Your task to perform on an android device: Google the capital of Panama Image 0: 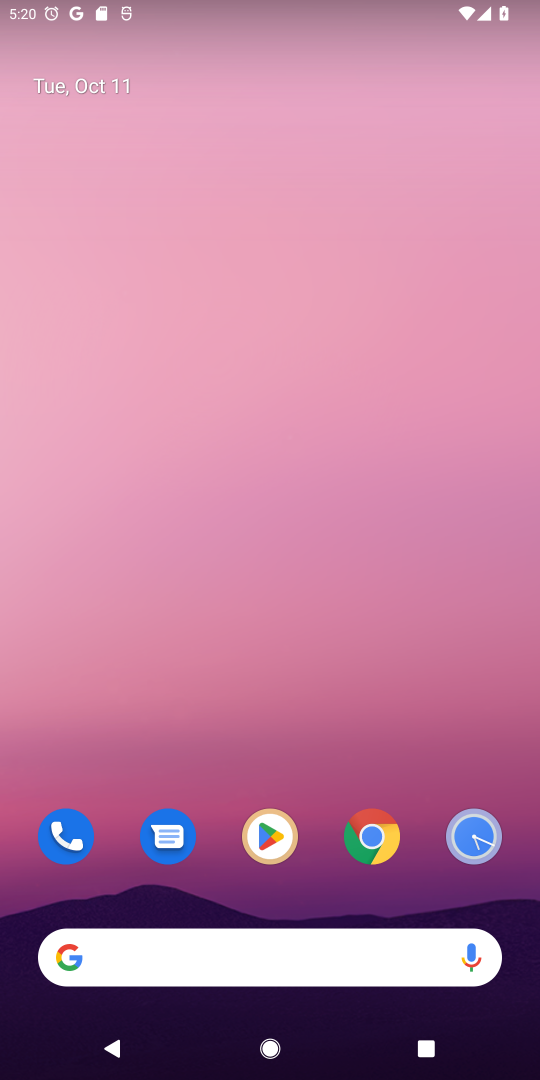
Step 0: click (174, 977)
Your task to perform on an android device: Google the capital of Panama Image 1: 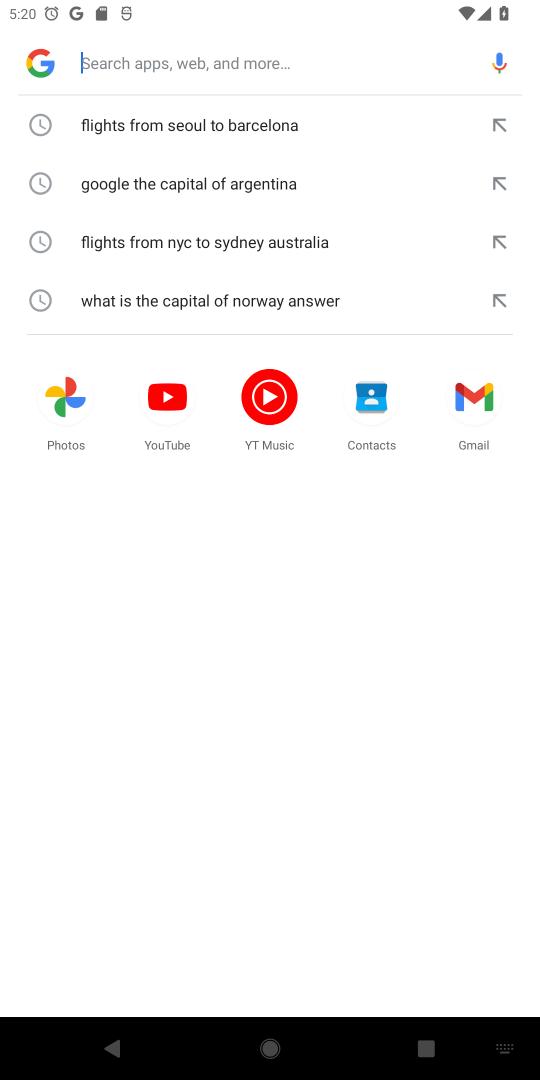
Step 1: type " capital of Panama"
Your task to perform on an android device: Google the capital of Panama Image 2: 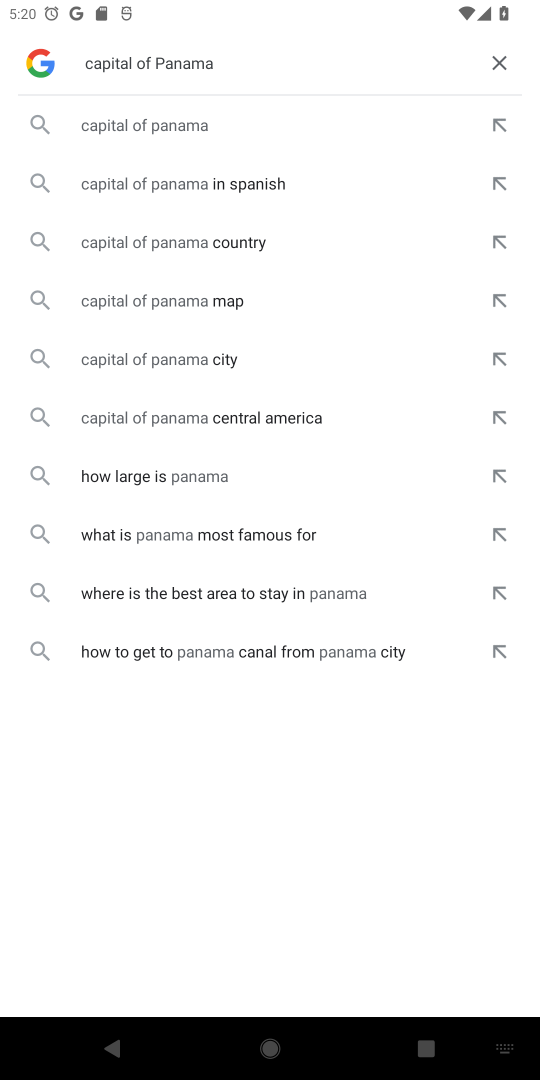
Step 2: click (187, 108)
Your task to perform on an android device: Google the capital of Panama Image 3: 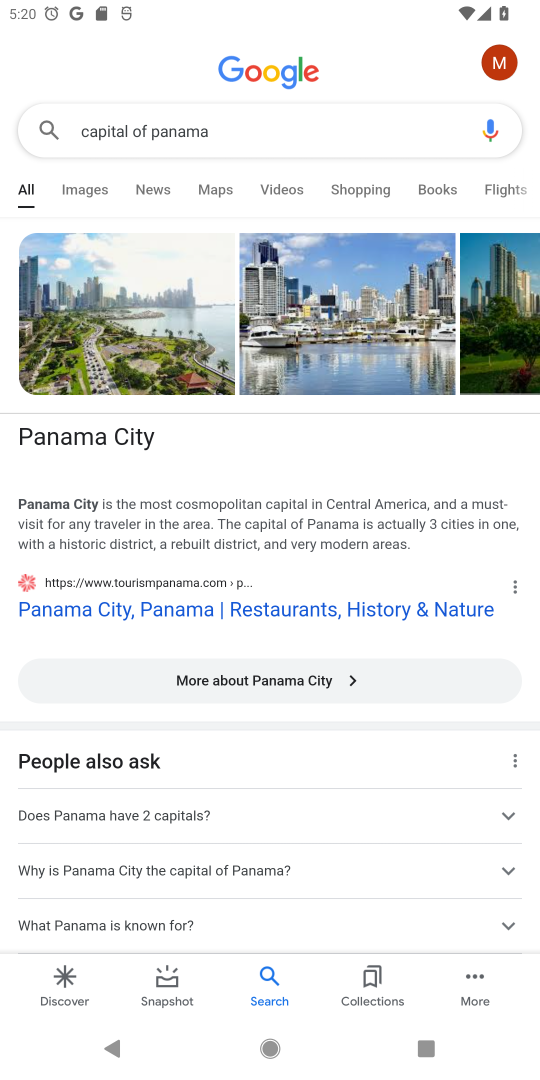
Step 3: task complete